Your task to perform on an android device: Toggle the flashlight Image 0: 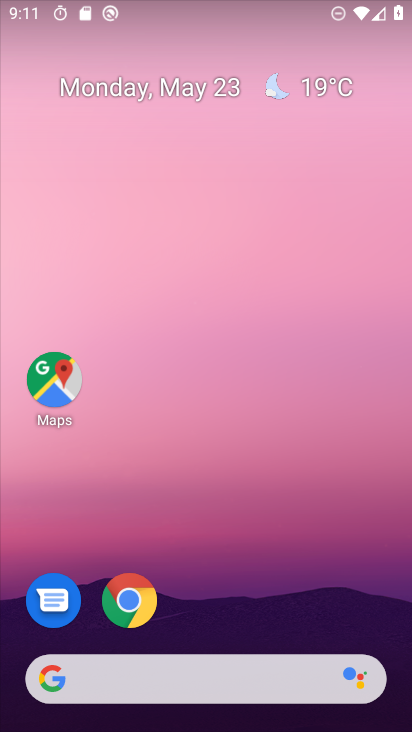
Step 0: press home button
Your task to perform on an android device: Toggle the flashlight Image 1: 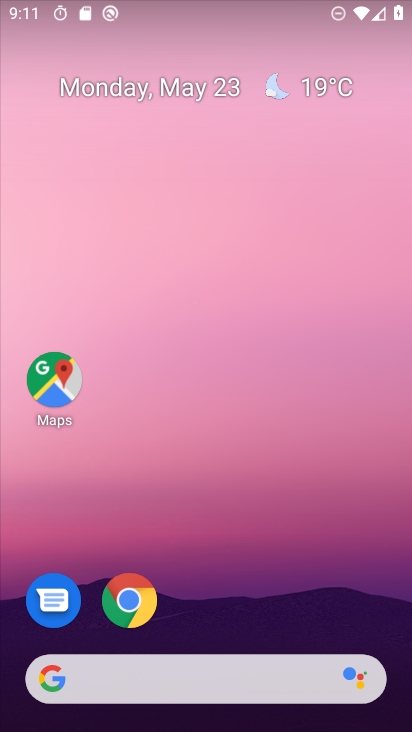
Step 1: drag from (47, 617) to (306, 174)
Your task to perform on an android device: Toggle the flashlight Image 2: 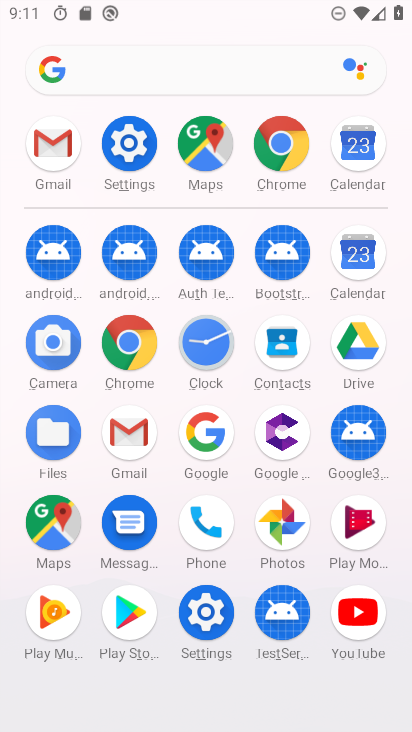
Step 2: click (125, 147)
Your task to perform on an android device: Toggle the flashlight Image 3: 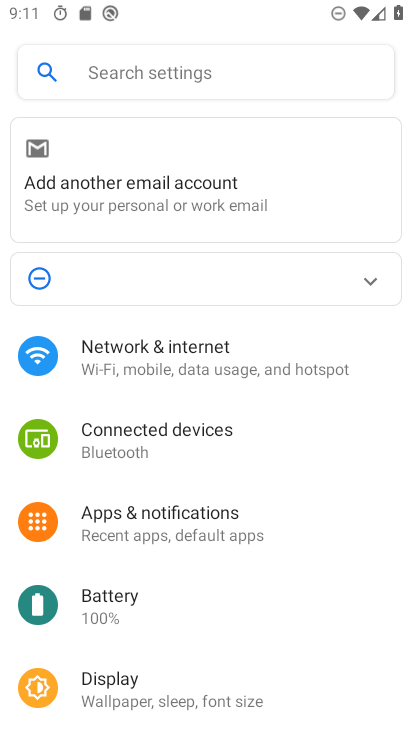
Step 3: drag from (134, 676) to (264, 300)
Your task to perform on an android device: Toggle the flashlight Image 4: 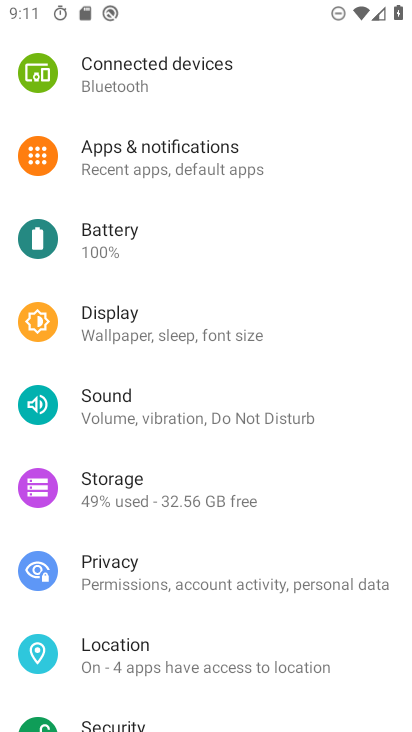
Step 4: click (173, 565)
Your task to perform on an android device: Toggle the flashlight Image 5: 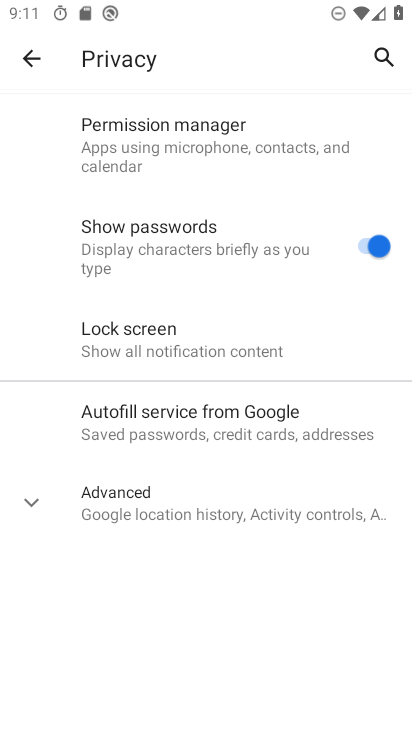
Step 5: task complete